Your task to perform on an android device: turn off improve location accuracy Image 0: 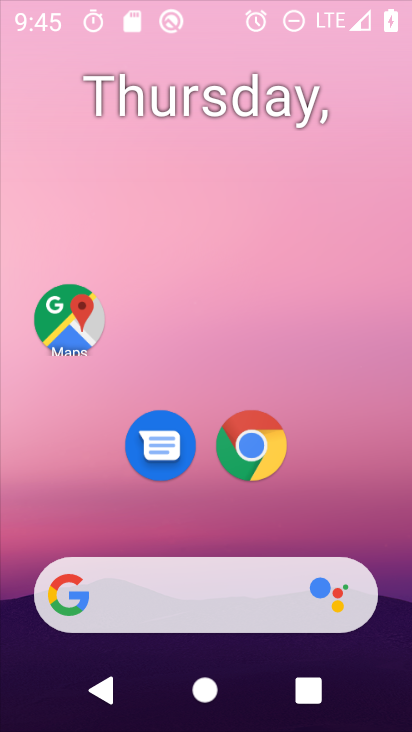
Step 0: click (267, 62)
Your task to perform on an android device: turn off improve location accuracy Image 1: 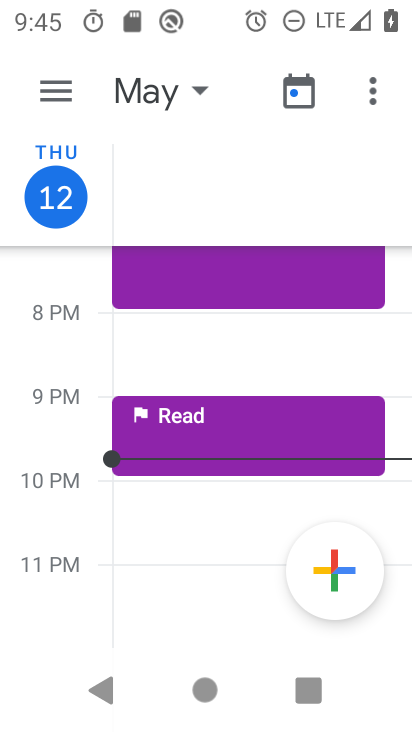
Step 1: press home button
Your task to perform on an android device: turn off improve location accuracy Image 2: 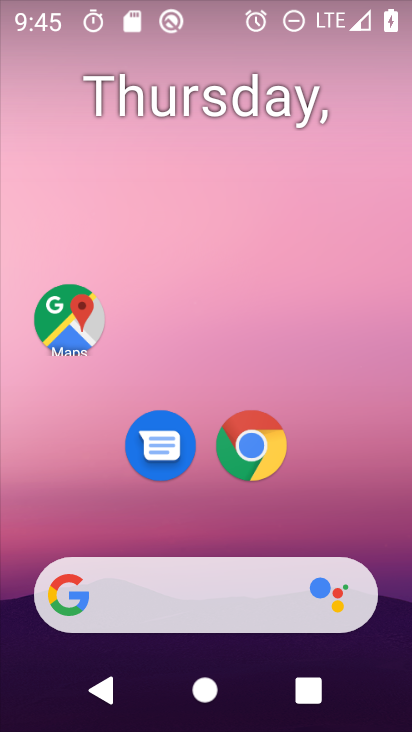
Step 2: drag from (190, 555) to (223, 100)
Your task to perform on an android device: turn off improve location accuracy Image 3: 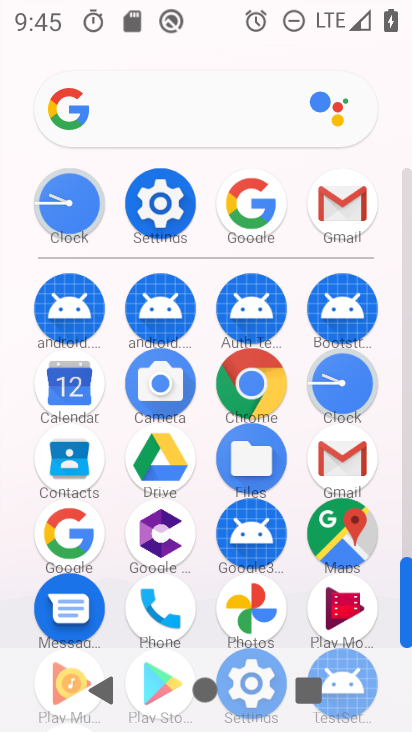
Step 3: click (162, 240)
Your task to perform on an android device: turn off improve location accuracy Image 4: 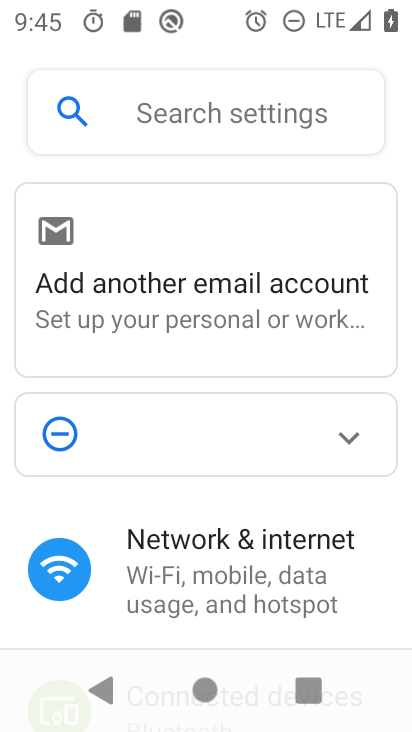
Step 4: drag from (216, 534) to (211, 165)
Your task to perform on an android device: turn off improve location accuracy Image 5: 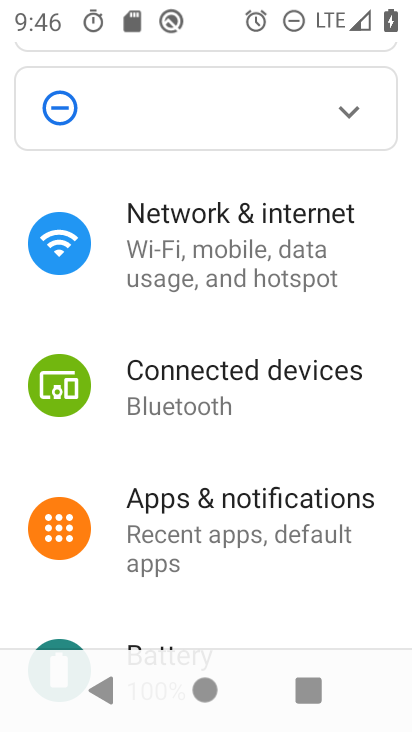
Step 5: drag from (232, 549) to (255, 121)
Your task to perform on an android device: turn off improve location accuracy Image 6: 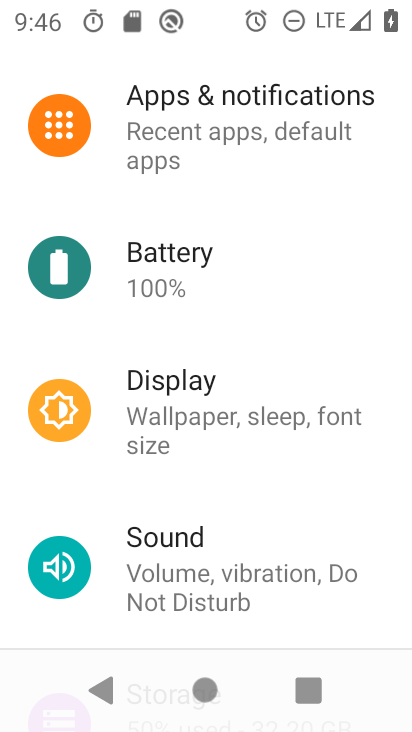
Step 6: drag from (182, 588) to (255, 223)
Your task to perform on an android device: turn off improve location accuracy Image 7: 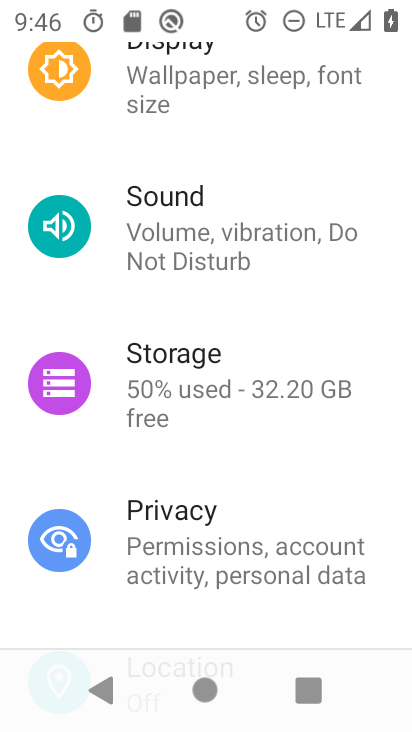
Step 7: drag from (225, 530) to (242, 297)
Your task to perform on an android device: turn off improve location accuracy Image 8: 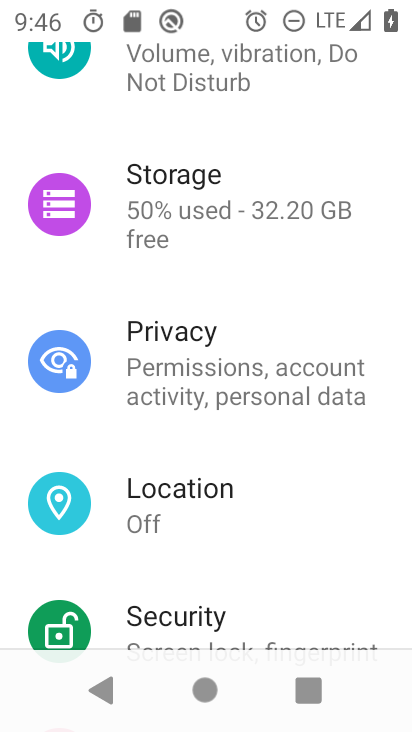
Step 8: click (141, 501)
Your task to perform on an android device: turn off improve location accuracy Image 9: 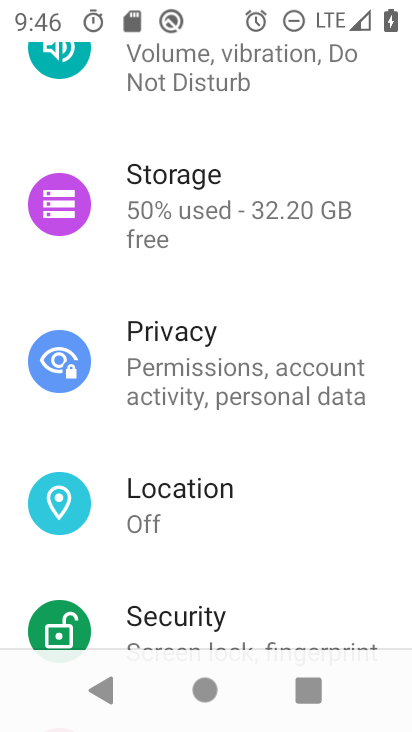
Step 9: click (141, 501)
Your task to perform on an android device: turn off improve location accuracy Image 10: 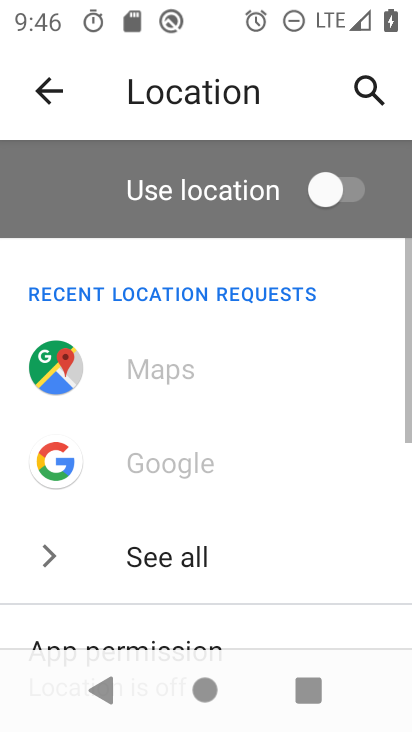
Step 10: drag from (207, 593) to (275, 162)
Your task to perform on an android device: turn off improve location accuracy Image 11: 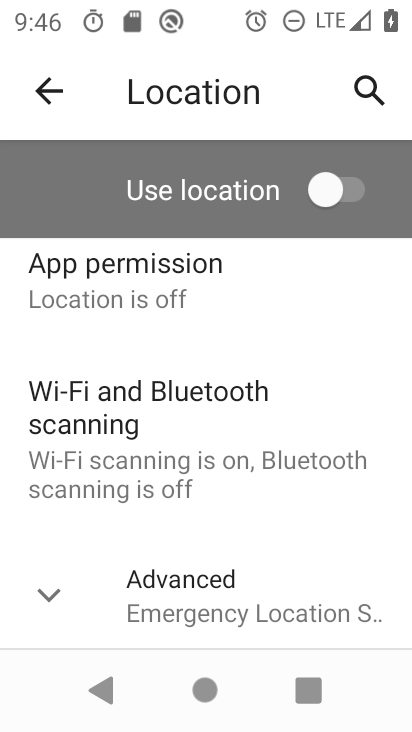
Step 11: click (212, 588)
Your task to perform on an android device: turn off improve location accuracy Image 12: 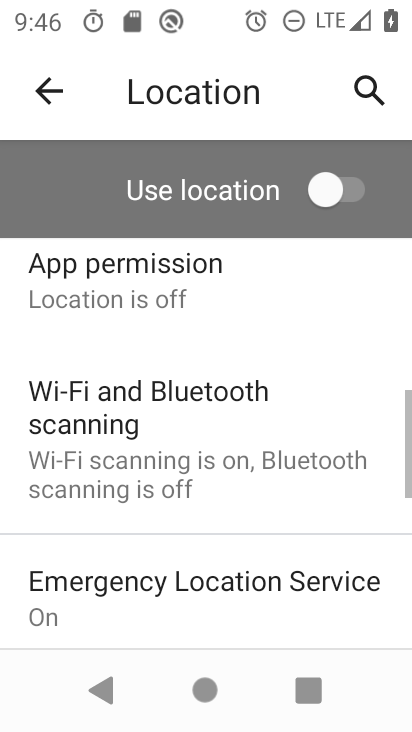
Step 12: drag from (209, 586) to (239, 185)
Your task to perform on an android device: turn off improve location accuracy Image 13: 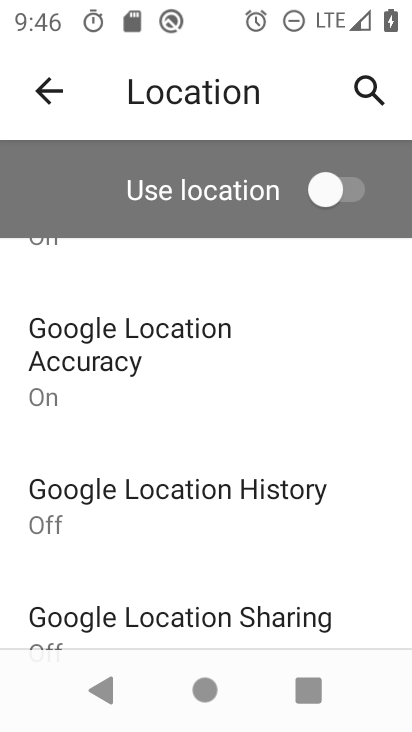
Step 13: click (164, 345)
Your task to perform on an android device: turn off improve location accuracy Image 14: 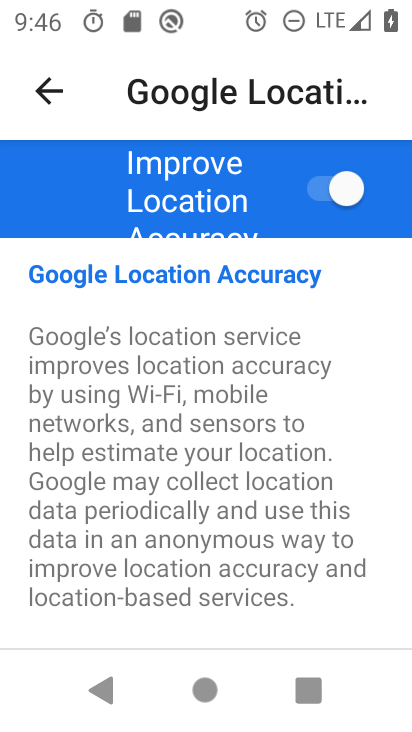
Step 14: click (341, 198)
Your task to perform on an android device: turn off improve location accuracy Image 15: 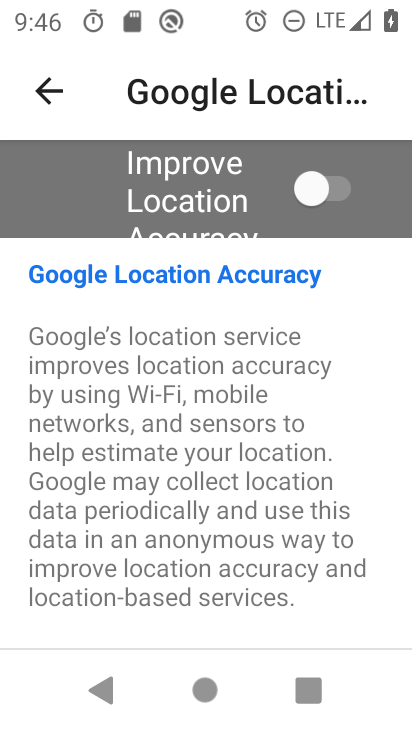
Step 15: task complete